Your task to perform on an android device: Set the phone to "Do not disturb". Image 0: 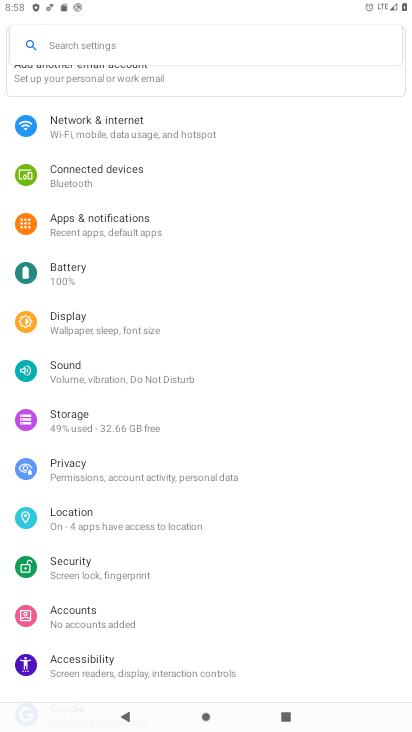
Step 0: press home button
Your task to perform on an android device: Set the phone to "Do not disturb". Image 1: 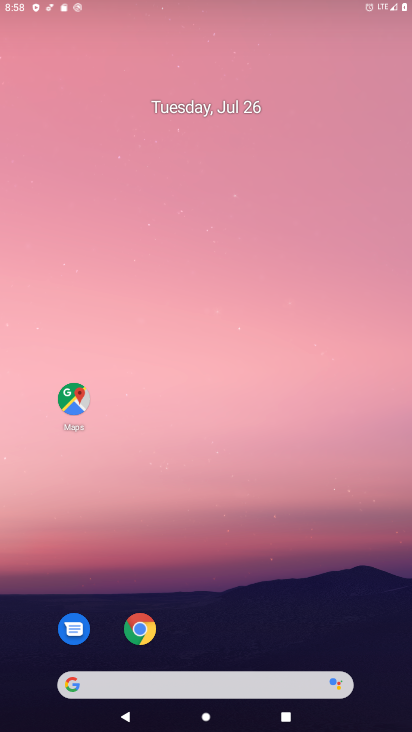
Step 1: drag from (130, 13) to (181, 630)
Your task to perform on an android device: Set the phone to "Do not disturb". Image 2: 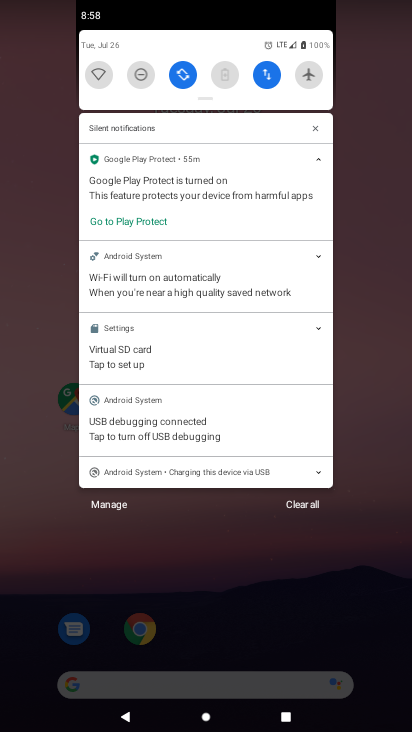
Step 2: click (143, 77)
Your task to perform on an android device: Set the phone to "Do not disturb". Image 3: 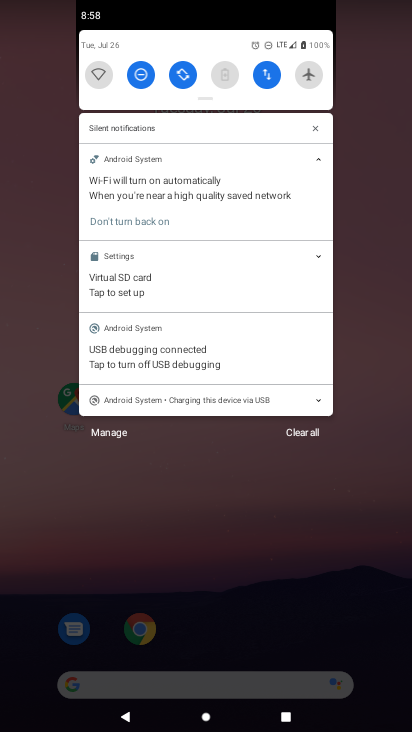
Step 3: task complete